Your task to perform on an android device: Go to display settings Image 0: 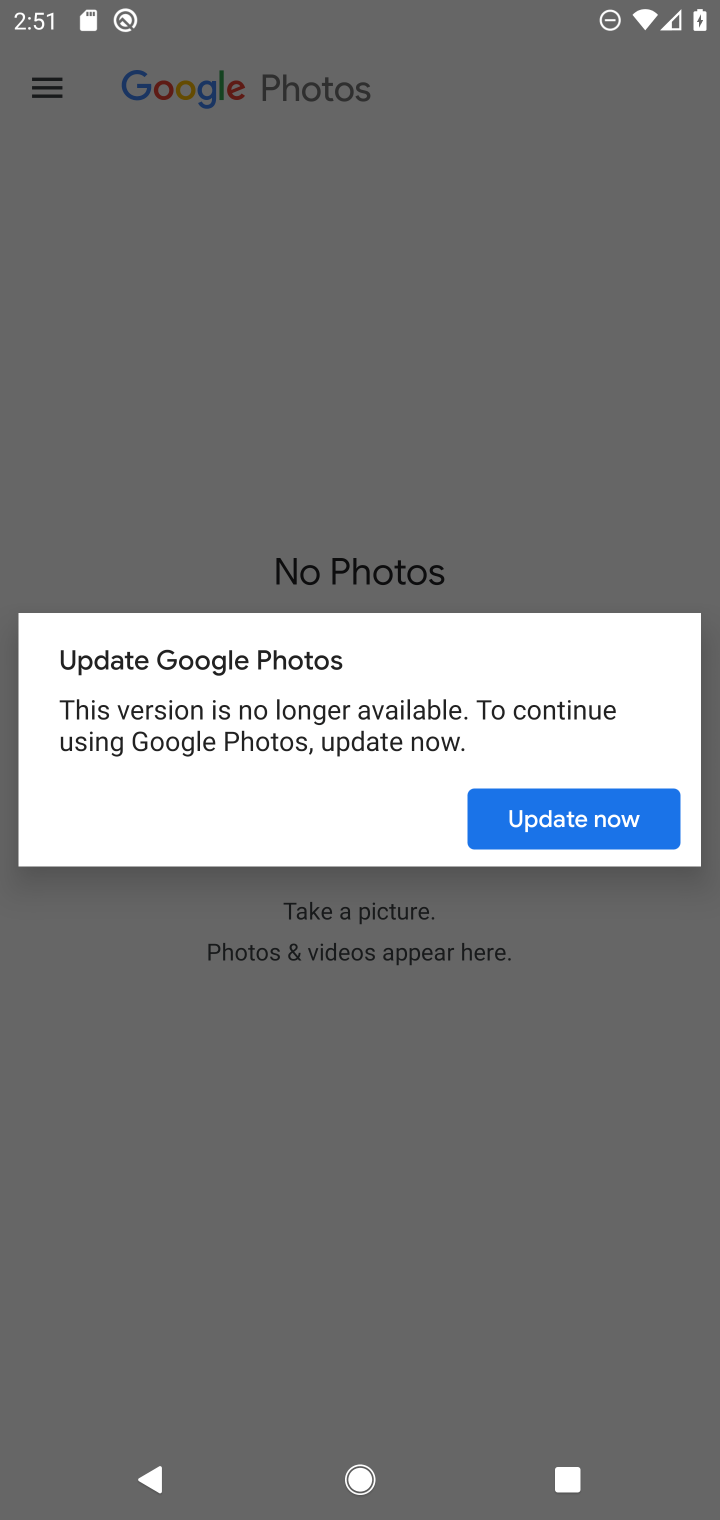
Step 0: press home button
Your task to perform on an android device: Go to display settings Image 1: 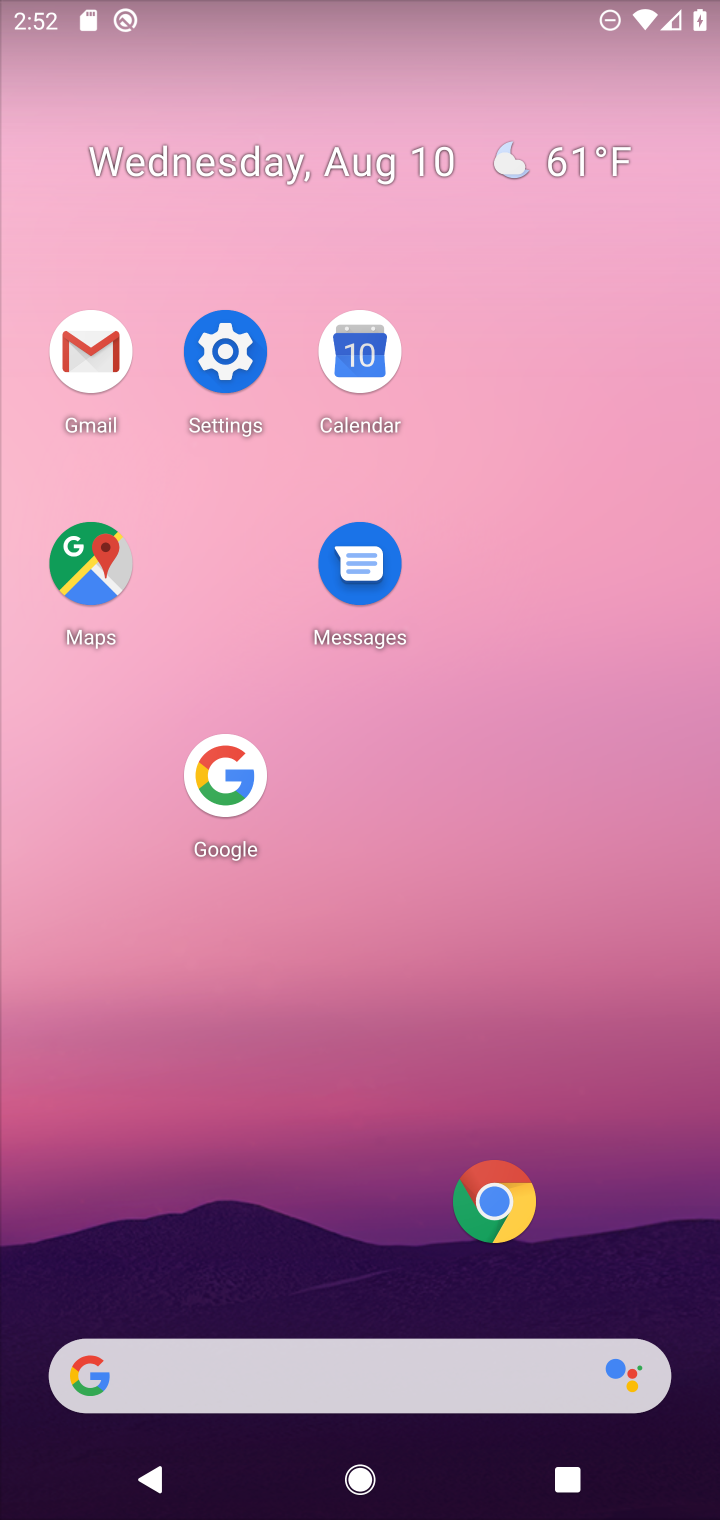
Step 1: click (232, 368)
Your task to perform on an android device: Go to display settings Image 2: 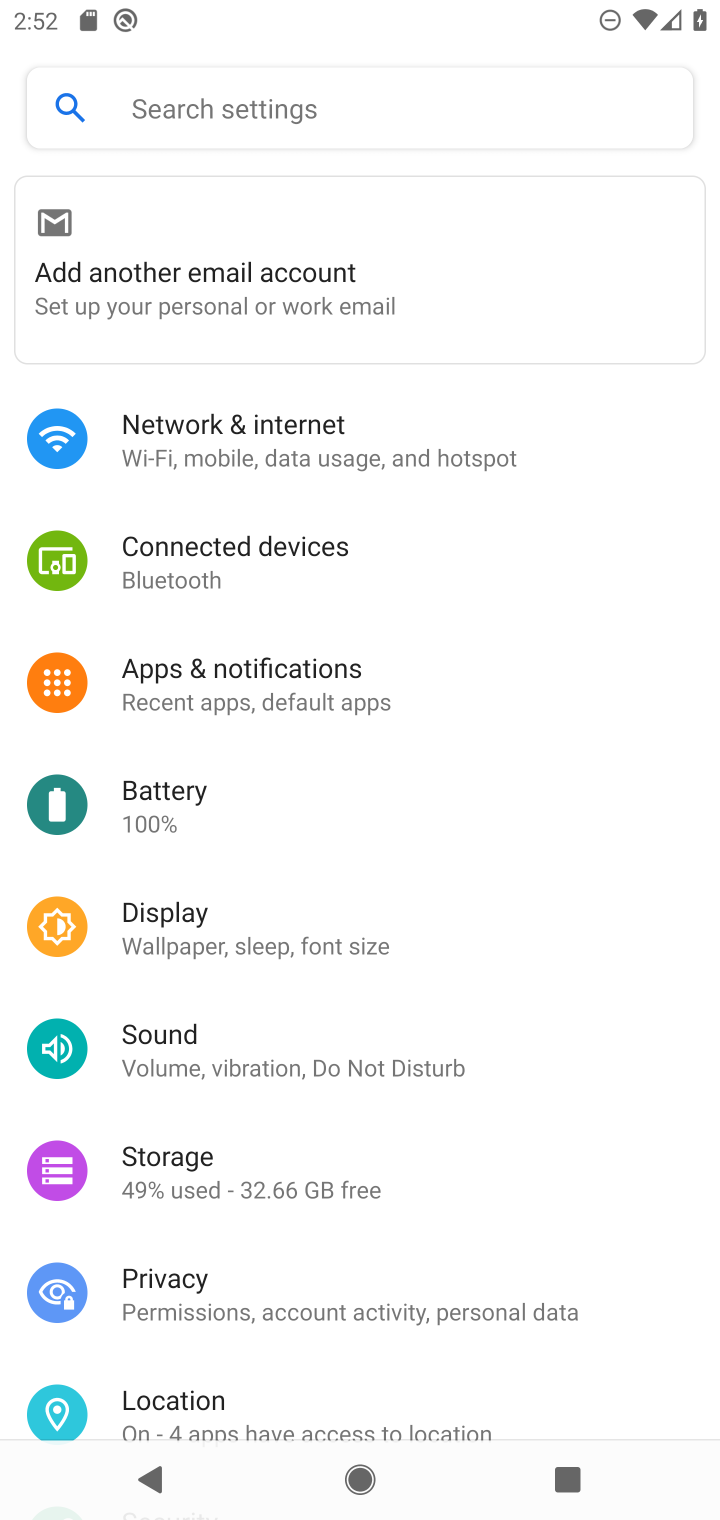
Step 2: click (340, 904)
Your task to perform on an android device: Go to display settings Image 3: 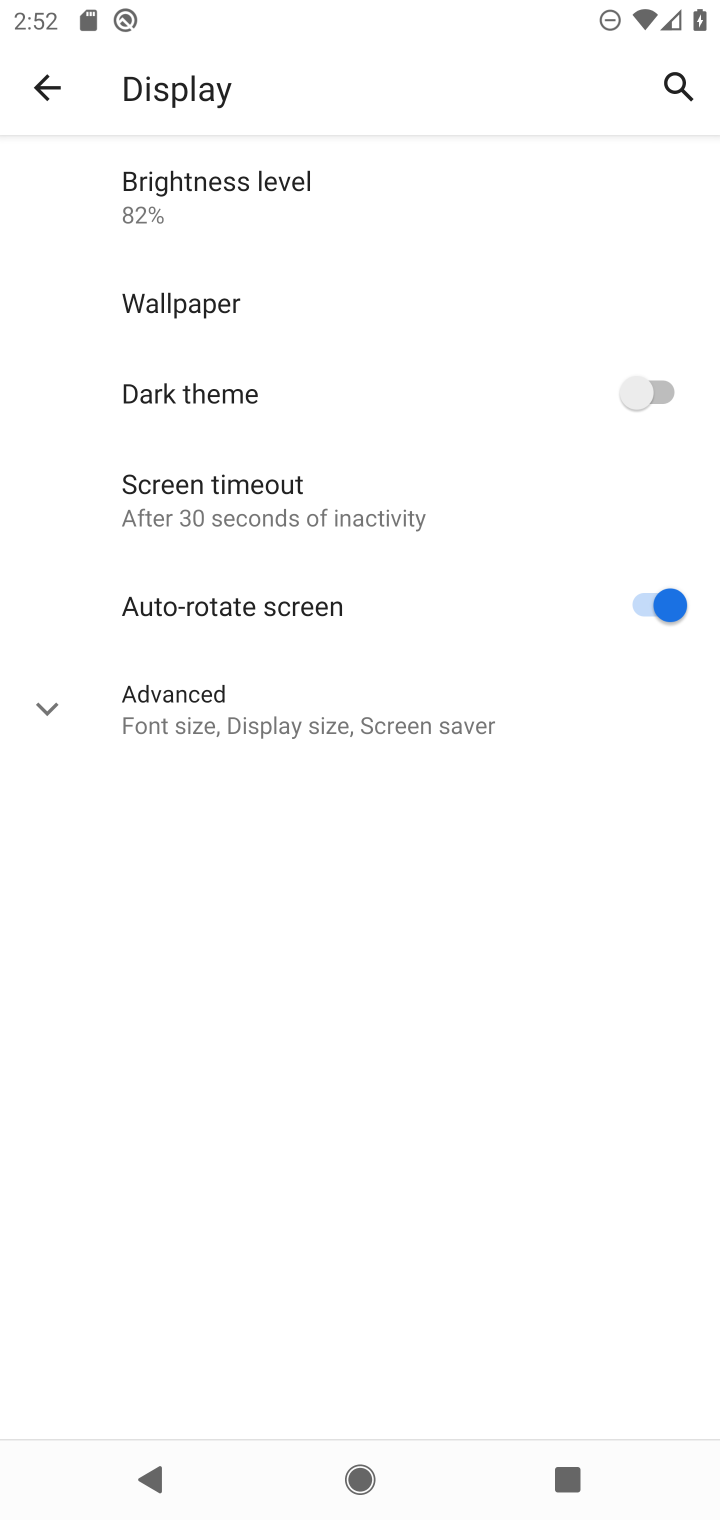
Step 3: task complete